Your task to perform on an android device: Open the web browser Image 0: 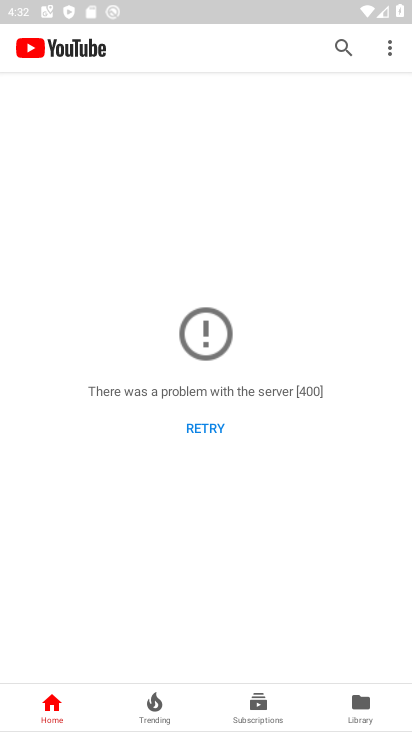
Step 0: press home button
Your task to perform on an android device: Open the web browser Image 1: 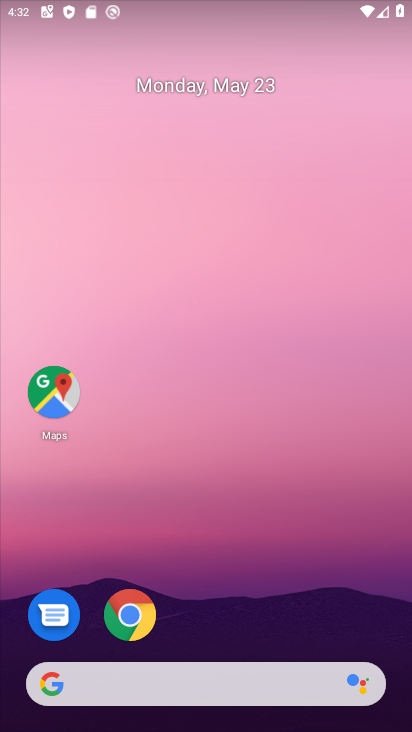
Step 1: task complete